Your task to perform on an android device: turn on bluetooth scan Image 0: 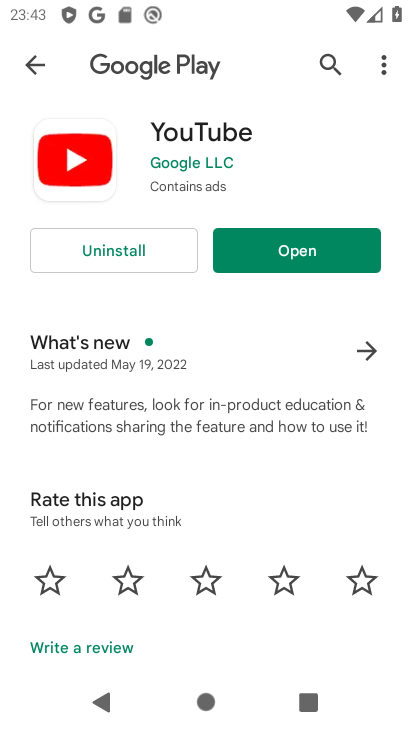
Step 0: press back button
Your task to perform on an android device: turn on bluetooth scan Image 1: 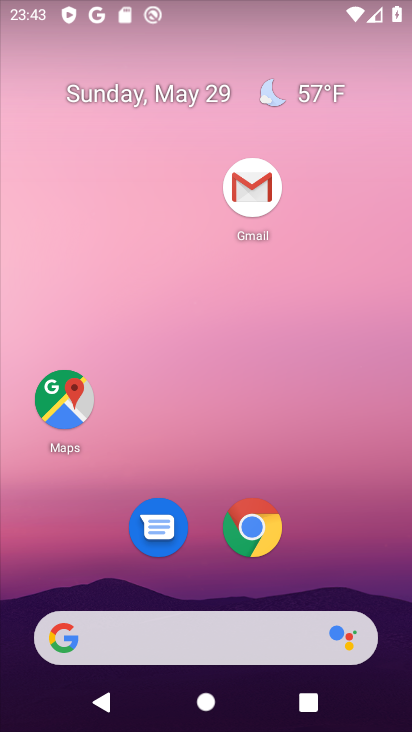
Step 1: drag from (348, 567) to (309, 40)
Your task to perform on an android device: turn on bluetooth scan Image 2: 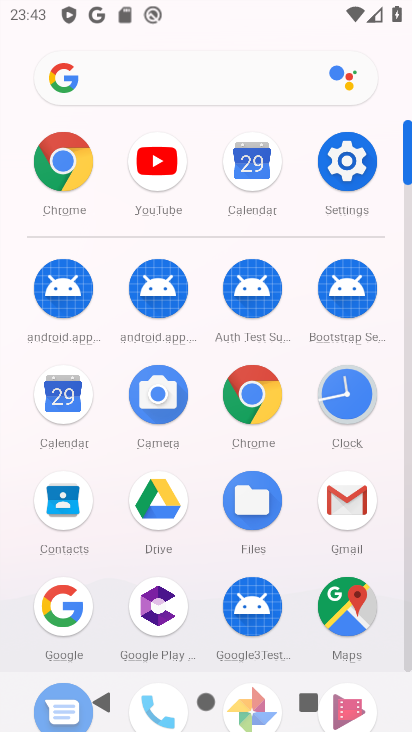
Step 2: click (347, 160)
Your task to perform on an android device: turn on bluetooth scan Image 3: 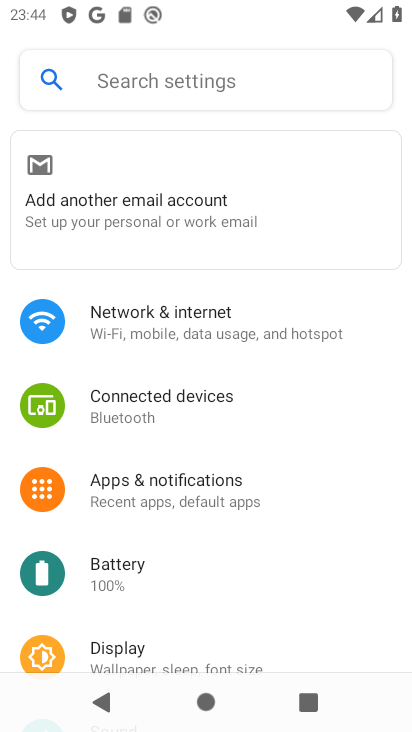
Step 3: drag from (110, 519) to (215, 281)
Your task to perform on an android device: turn on bluetooth scan Image 4: 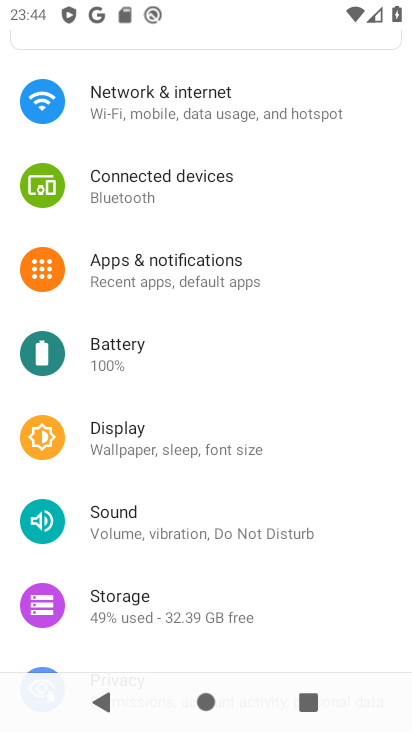
Step 4: drag from (155, 556) to (214, 382)
Your task to perform on an android device: turn on bluetooth scan Image 5: 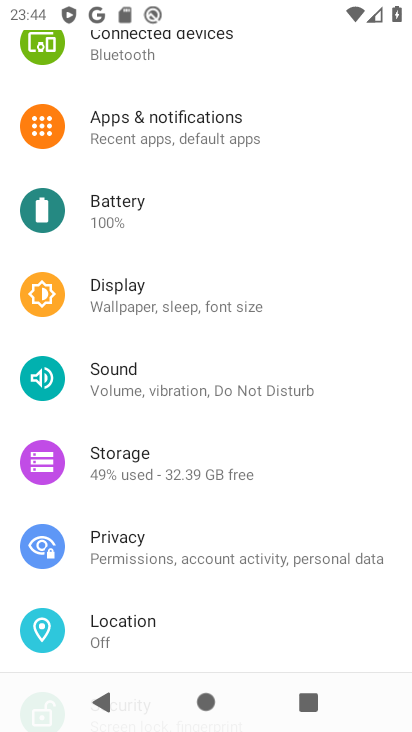
Step 5: drag from (193, 622) to (275, 509)
Your task to perform on an android device: turn on bluetooth scan Image 6: 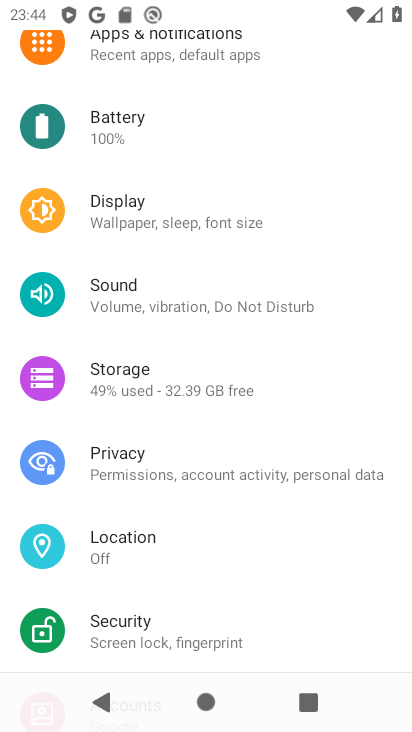
Step 6: click (131, 536)
Your task to perform on an android device: turn on bluetooth scan Image 7: 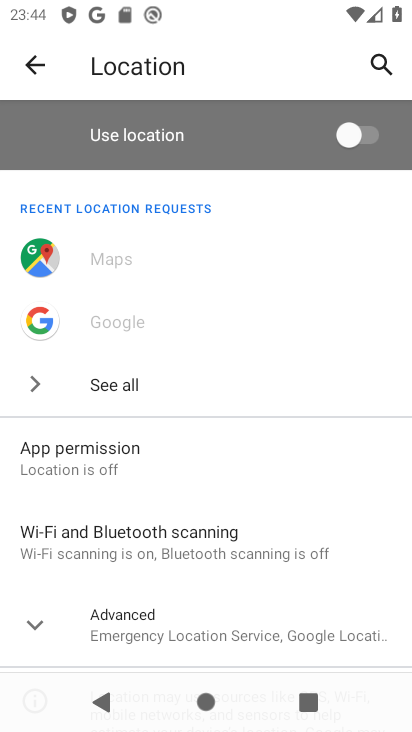
Step 7: click (138, 553)
Your task to perform on an android device: turn on bluetooth scan Image 8: 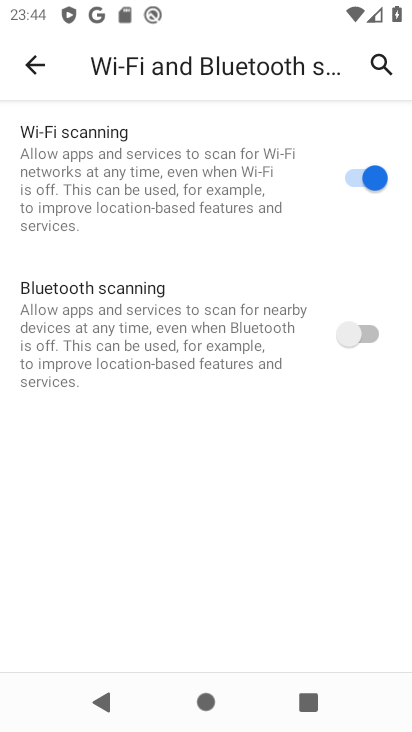
Step 8: click (341, 330)
Your task to perform on an android device: turn on bluetooth scan Image 9: 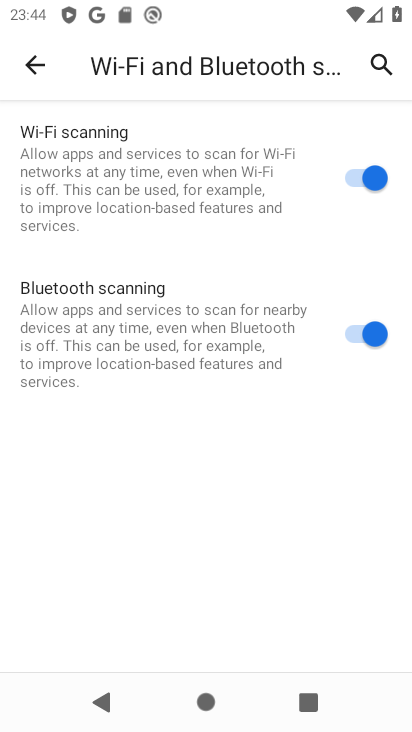
Step 9: task complete